Your task to perform on an android device: Go to Google maps Image 0: 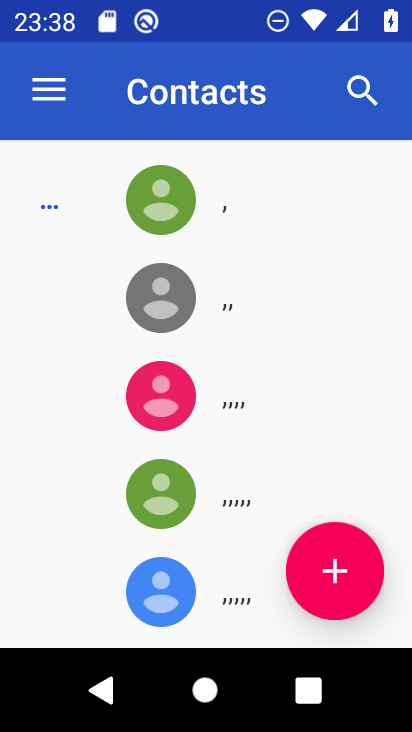
Step 0: press home button
Your task to perform on an android device: Go to Google maps Image 1: 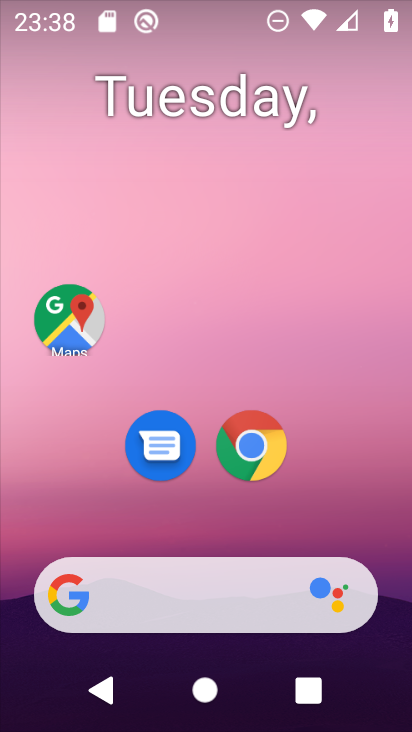
Step 1: click (65, 329)
Your task to perform on an android device: Go to Google maps Image 2: 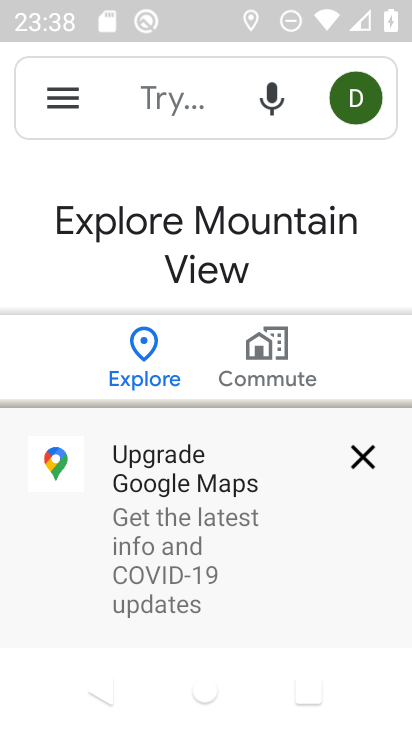
Step 2: click (352, 457)
Your task to perform on an android device: Go to Google maps Image 3: 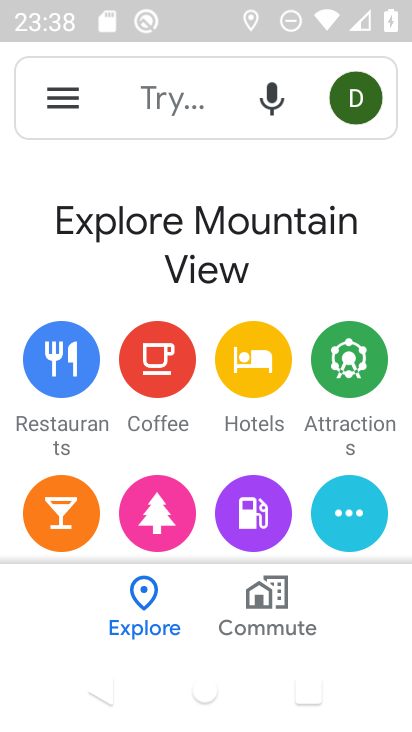
Step 3: task complete